Your task to perform on an android device: What is the news today? Image 0: 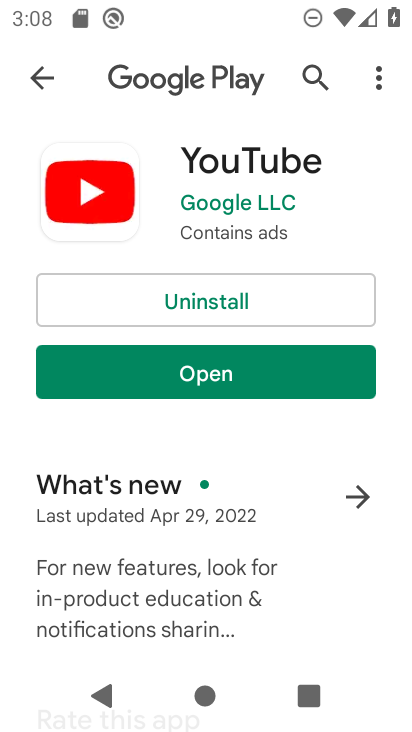
Step 0: press home button
Your task to perform on an android device: What is the news today? Image 1: 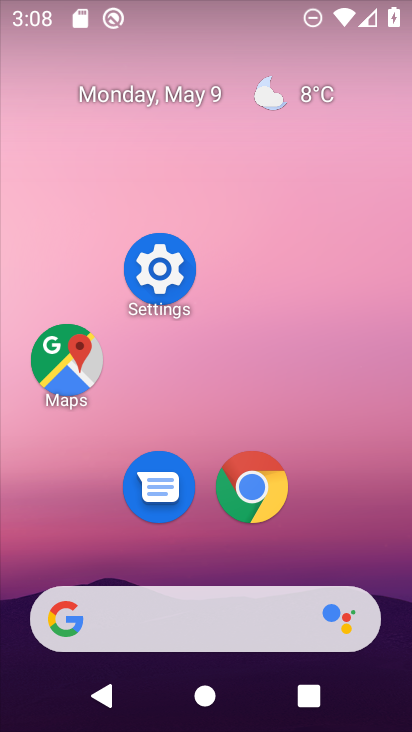
Step 1: task complete